Your task to perform on an android device: turn on the 12-hour format for clock Image 0: 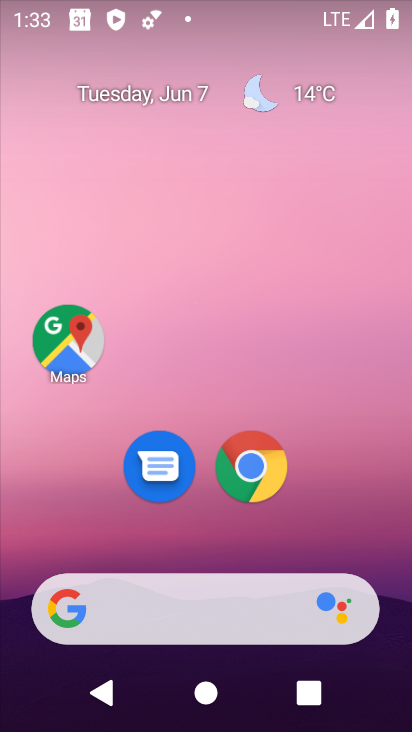
Step 0: drag from (188, 540) to (253, 117)
Your task to perform on an android device: turn on the 12-hour format for clock Image 1: 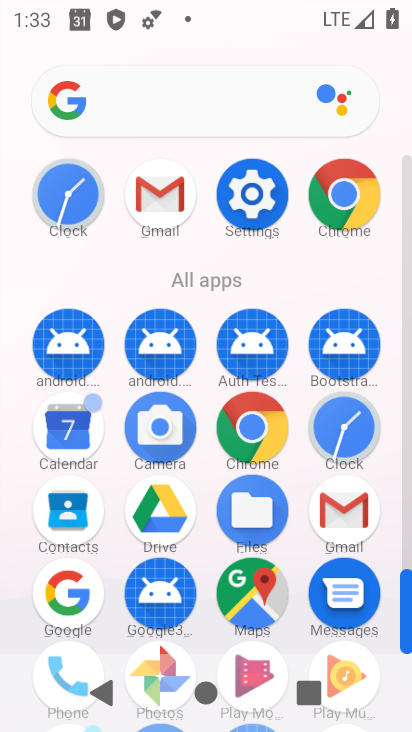
Step 1: click (348, 432)
Your task to perform on an android device: turn on the 12-hour format for clock Image 2: 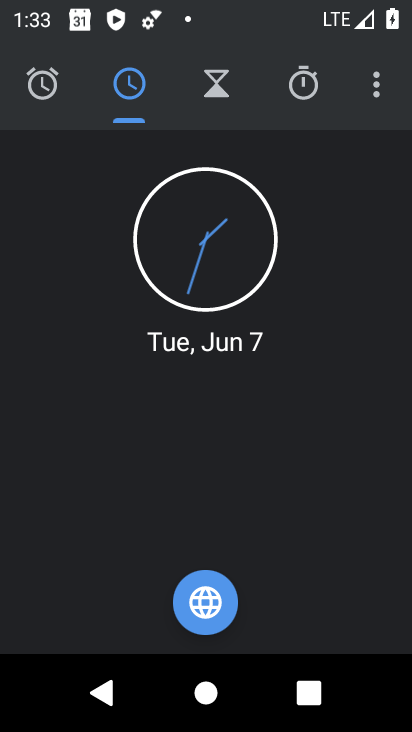
Step 2: click (376, 78)
Your task to perform on an android device: turn on the 12-hour format for clock Image 3: 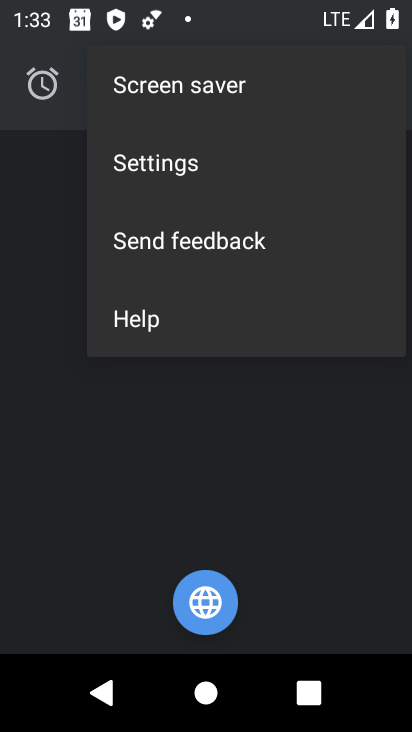
Step 3: click (204, 173)
Your task to perform on an android device: turn on the 12-hour format for clock Image 4: 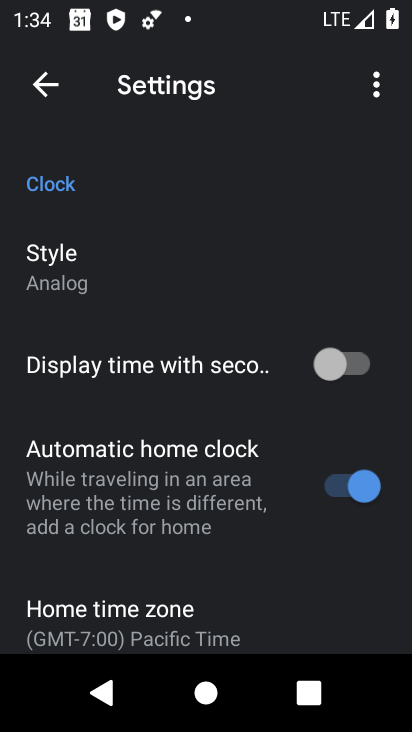
Step 4: click (101, 266)
Your task to perform on an android device: turn on the 12-hour format for clock Image 5: 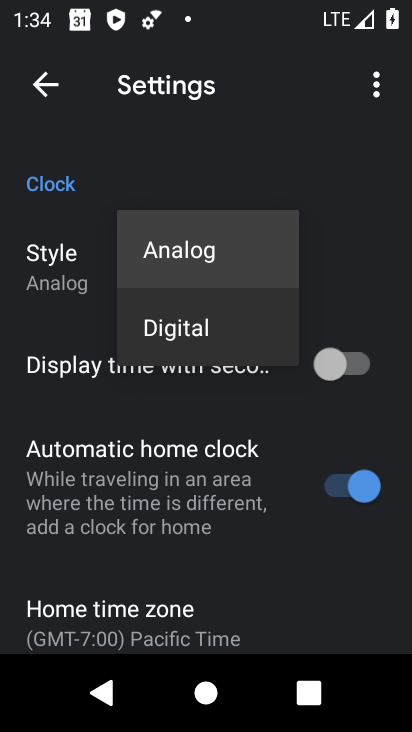
Step 5: click (168, 608)
Your task to perform on an android device: turn on the 12-hour format for clock Image 6: 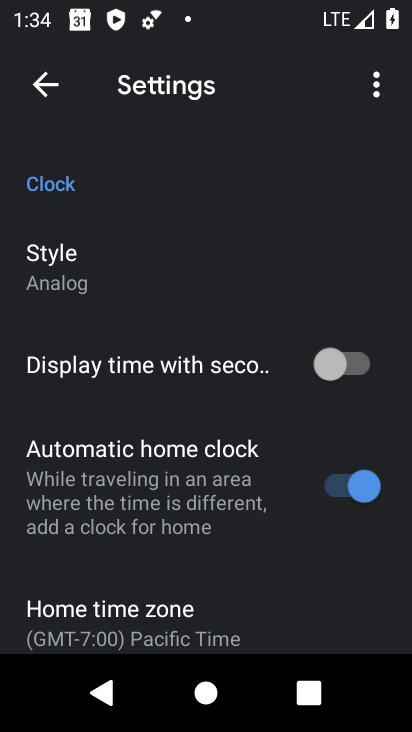
Step 6: drag from (168, 608) to (184, 156)
Your task to perform on an android device: turn on the 12-hour format for clock Image 7: 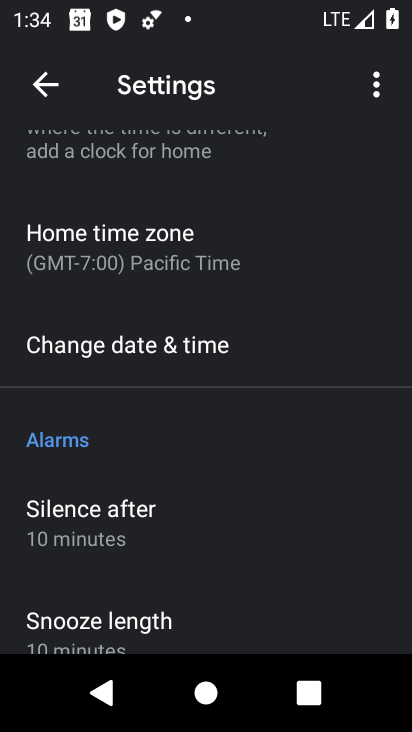
Step 7: click (112, 336)
Your task to perform on an android device: turn on the 12-hour format for clock Image 8: 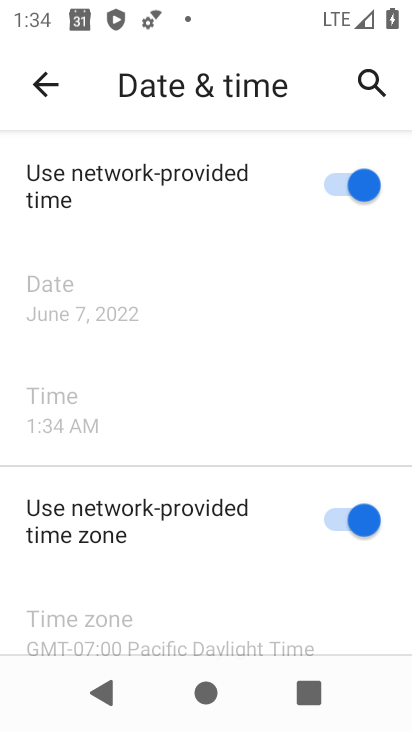
Step 8: task complete